Your task to perform on an android device: Open internet settings Image 0: 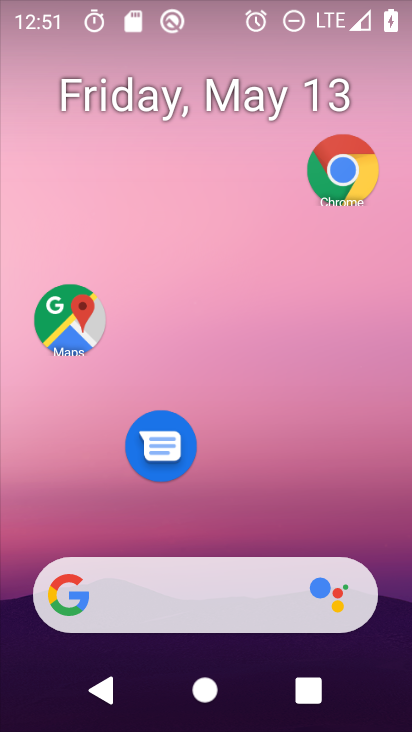
Step 0: drag from (306, 584) to (313, 1)
Your task to perform on an android device: Open internet settings Image 1: 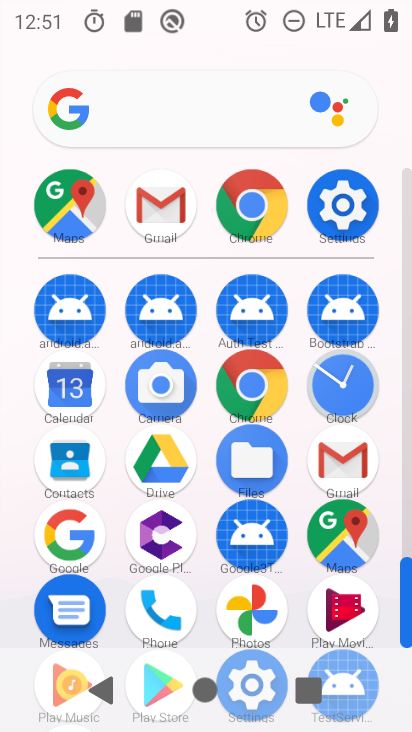
Step 1: click (338, 209)
Your task to perform on an android device: Open internet settings Image 2: 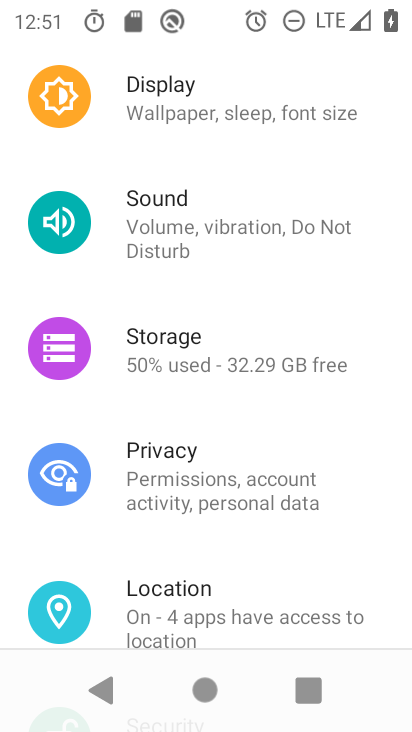
Step 2: drag from (299, 266) to (319, 673)
Your task to perform on an android device: Open internet settings Image 3: 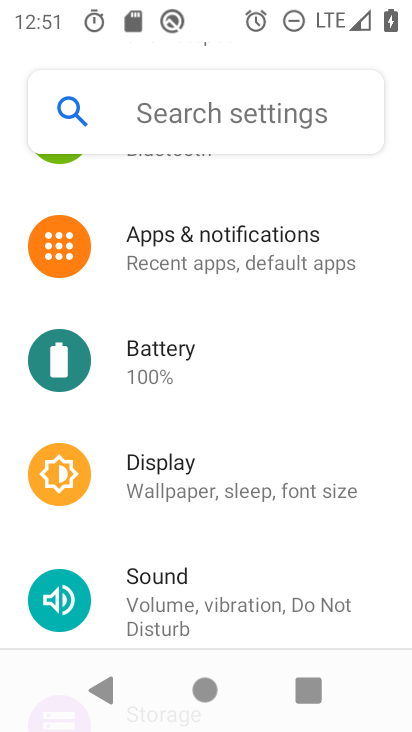
Step 3: drag from (262, 248) to (288, 642)
Your task to perform on an android device: Open internet settings Image 4: 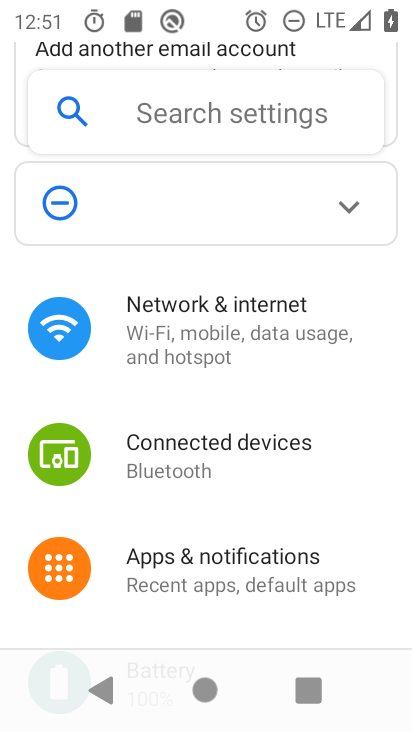
Step 4: click (251, 307)
Your task to perform on an android device: Open internet settings Image 5: 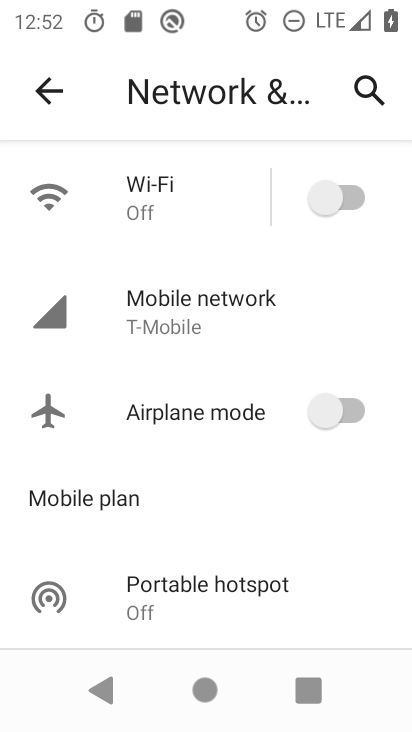
Step 5: click (277, 299)
Your task to perform on an android device: Open internet settings Image 6: 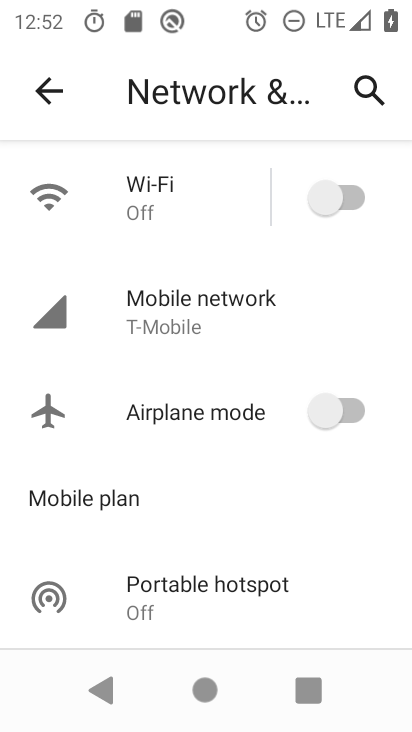
Step 6: task complete